Your task to perform on an android device: See recent photos Image 0: 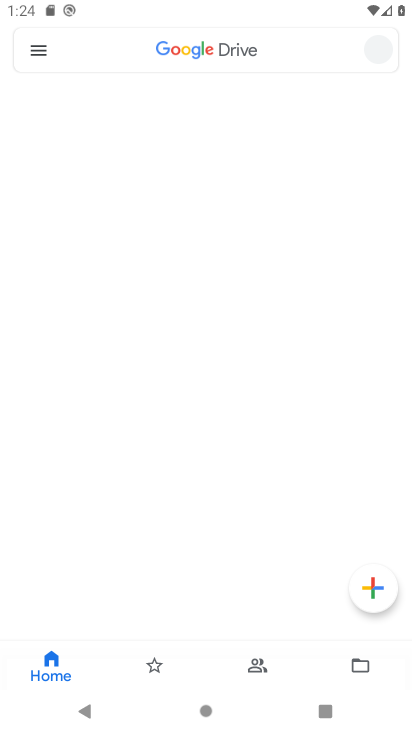
Step 0: click (269, 4)
Your task to perform on an android device: See recent photos Image 1: 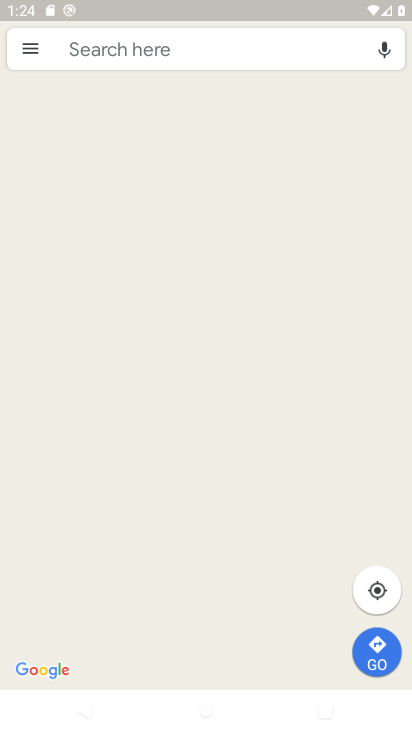
Step 1: press home button
Your task to perform on an android device: See recent photos Image 2: 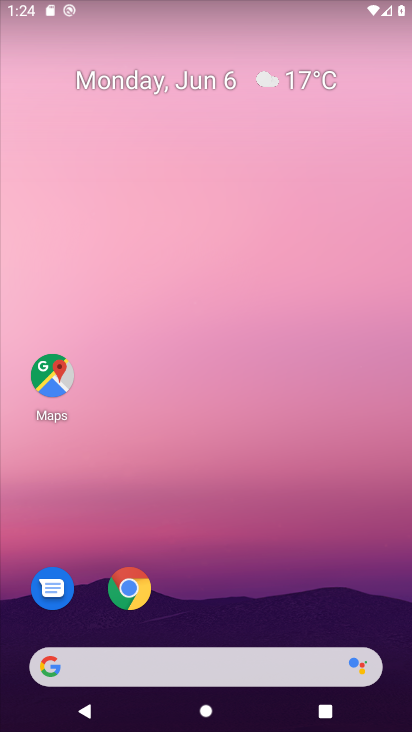
Step 2: drag from (262, 605) to (301, 86)
Your task to perform on an android device: See recent photos Image 3: 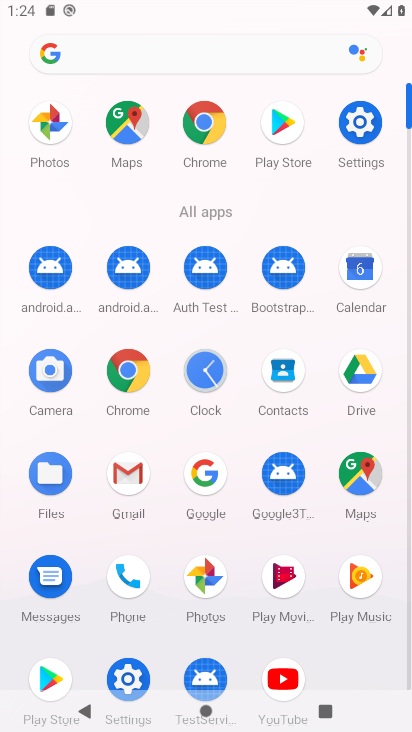
Step 3: click (202, 572)
Your task to perform on an android device: See recent photos Image 4: 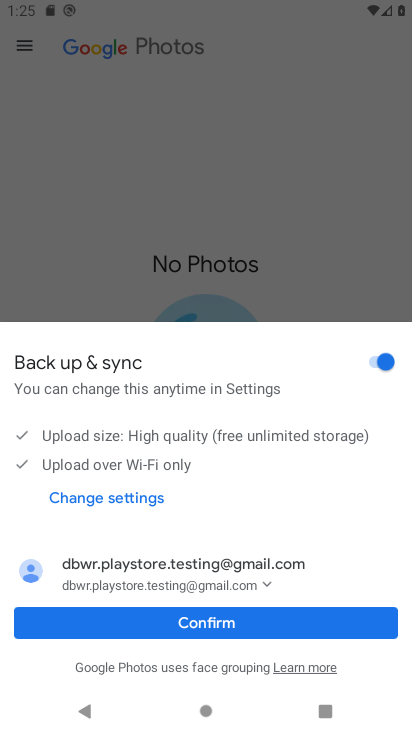
Step 4: click (218, 628)
Your task to perform on an android device: See recent photos Image 5: 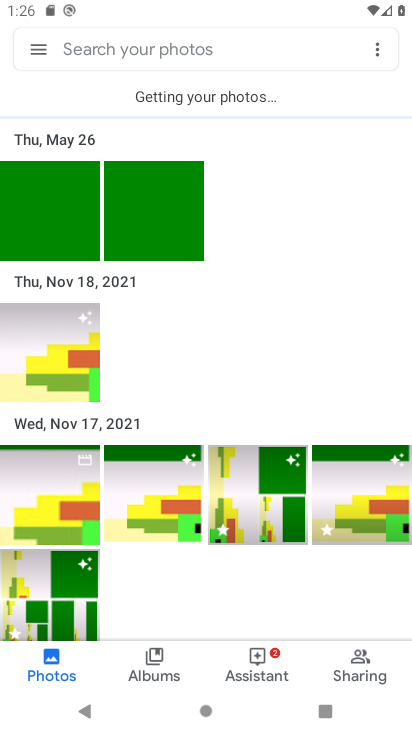
Step 5: task complete